Your task to perform on an android device: turn on bluetooth scan Image 0: 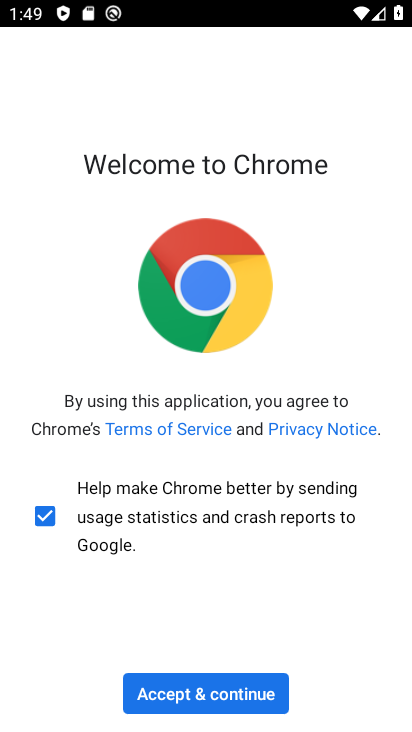
Step 0: press back button
Your task to perform on an android device: turn on bluetooth scan Image 1: 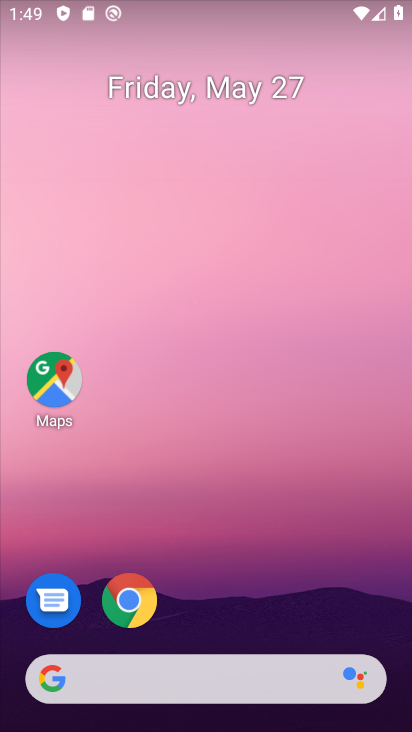
Step 1: drag from (232, 601) to (153, 24)
Your task to perform on an android device: turn on bluetooth scan Image 2: 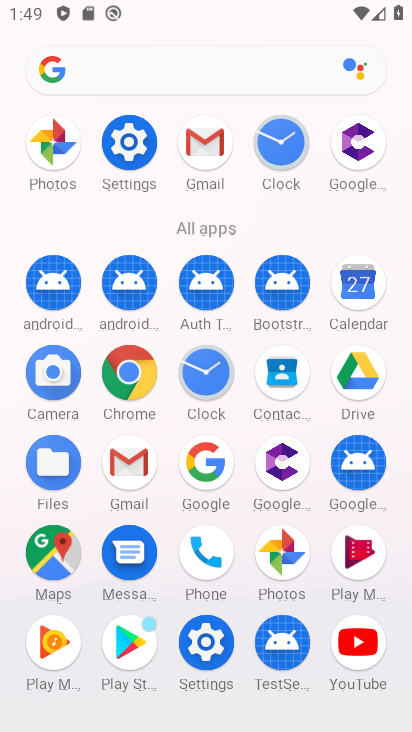
Step 2: click (205, 639)
Your task to perform on an android device: turn on bluetooth scan Image 3: 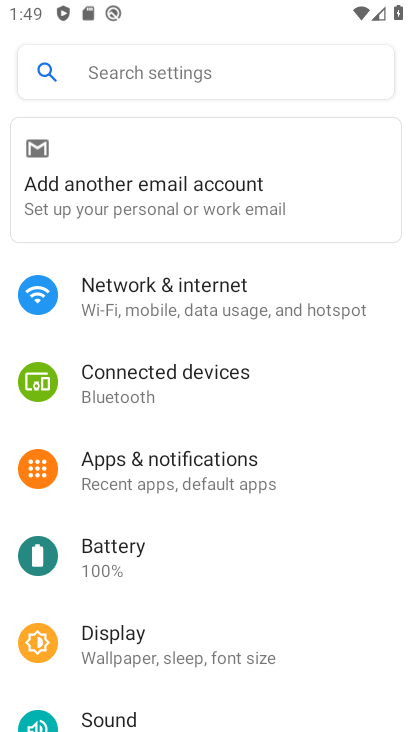
Step 3: drag from (268, 598) to (263, 248)
Your task to perform on an android device: turn on bluetooth scan Image 4: 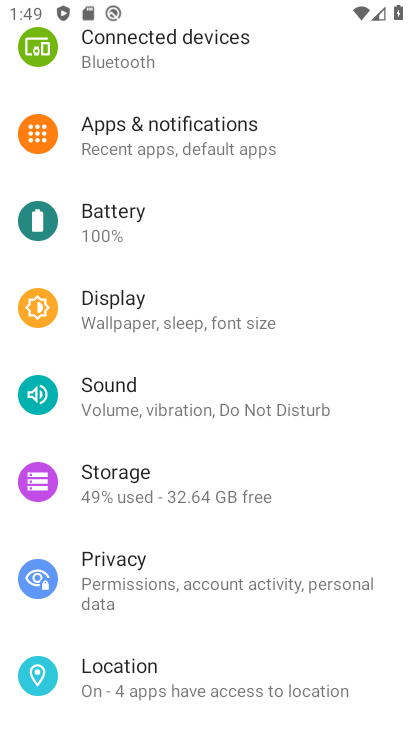
Step 4: drag from (246, 654) to (271, 271)
Your task to perform on an android device: turn on bluetooth scan Image 5: 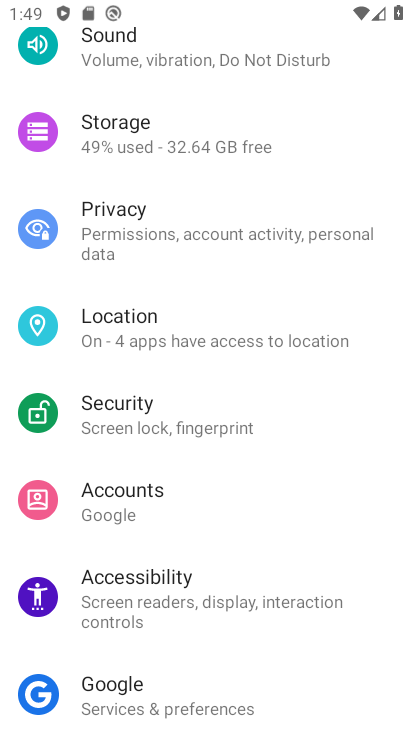
Step 5: click (165, 327)
Your task to perform on an android device: turn on bluetooth scan Image 6: 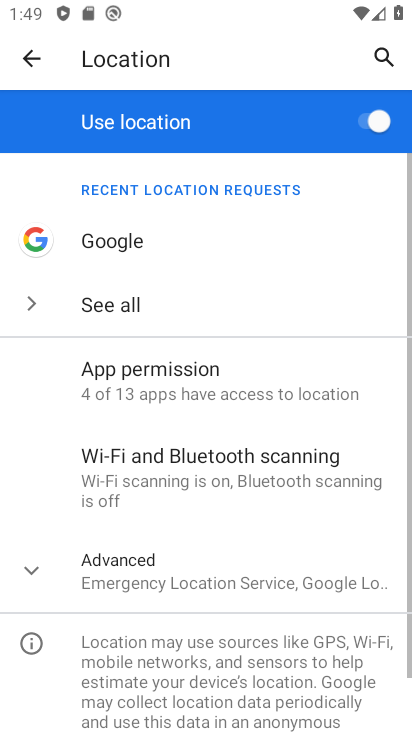
Step 6: click (78, 569)
Your task to perform on an android device: turn on bluetooth scan Image 7: 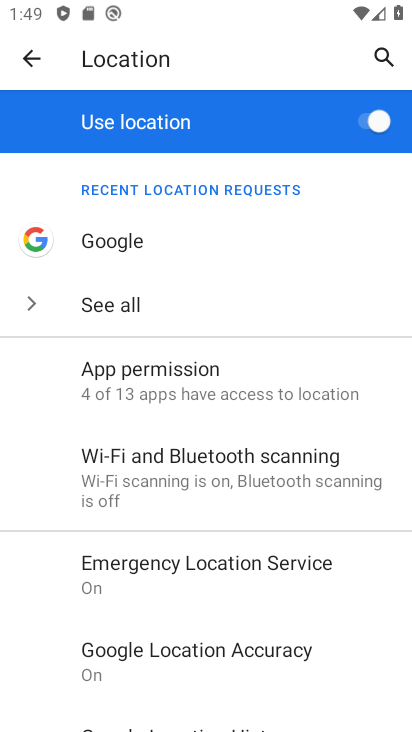
Step 7: click (253, 471)
Your task to perform on an android device: turn on bluetooth scan Image 8: 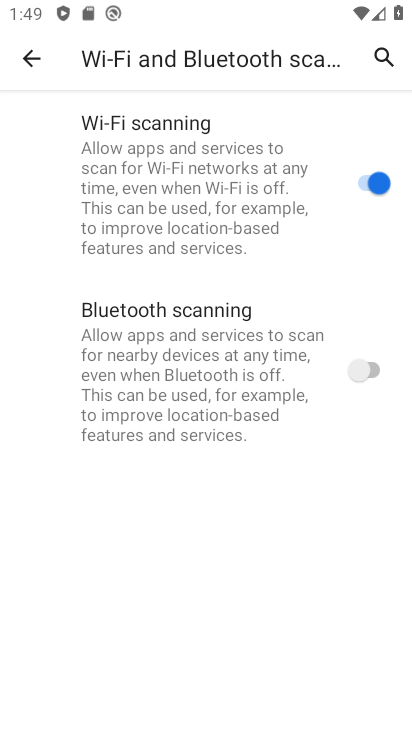
Step 8: click (369, 356)
Your task to perform on an android device: turn on bluetooth scan Image 9: 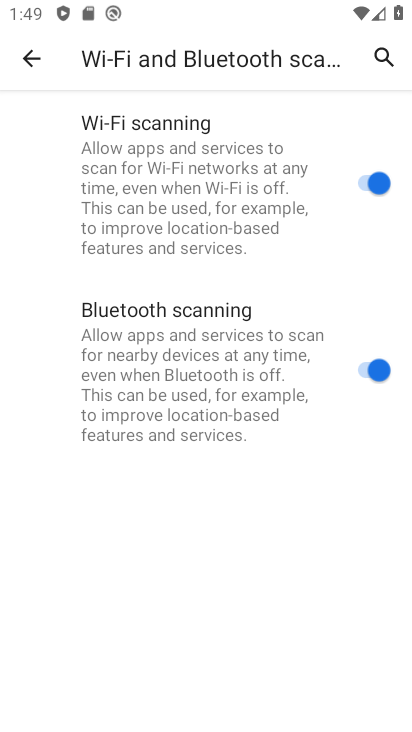
Step 9: task complete